Your task to perform on an android device: turn off location Image 0: 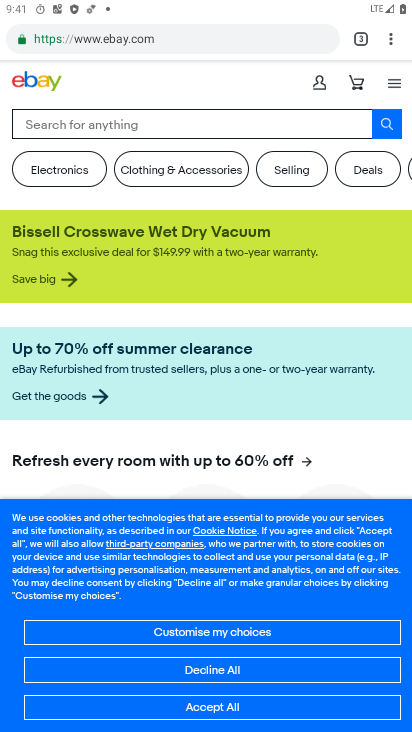
Step 0: press home button
Your task to perform on an android device: turn off location Image 1: 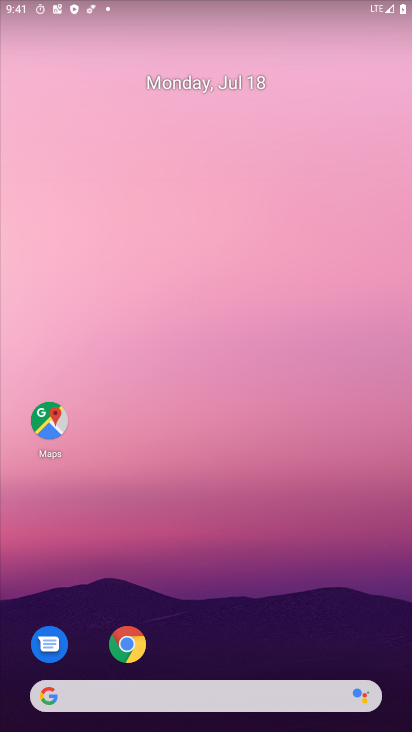
Step 1: drag from (214, 660) to (216, 114)
Your task to perform on an android device: turn off location Image 2: 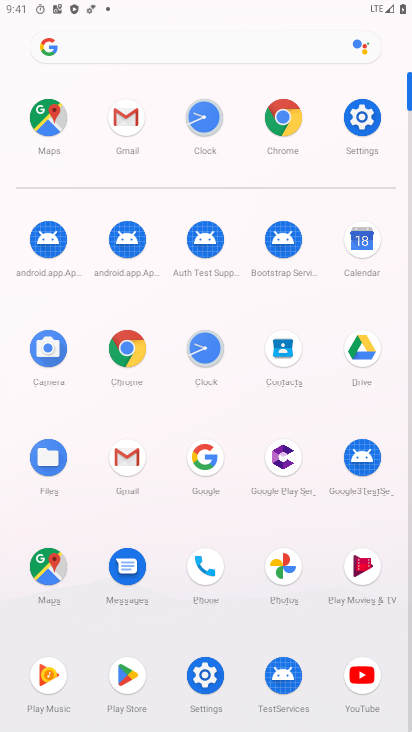
Step 2: click (364, 102)
Your task to perform on an android device: turn off location Image 3: 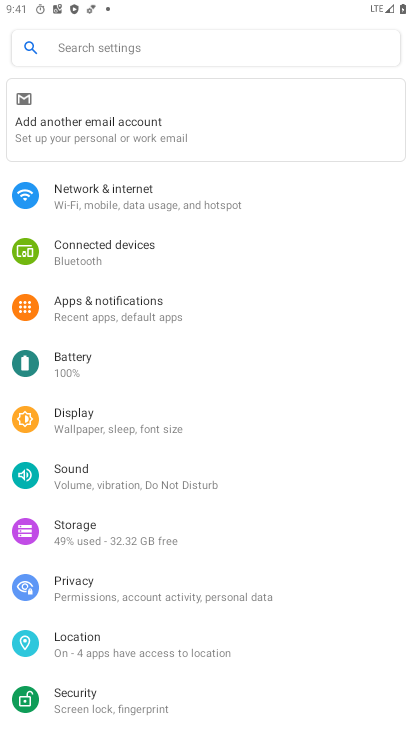
Step 3: click (125, 640)
Your task to perform on an android device: turn off location Image 4: 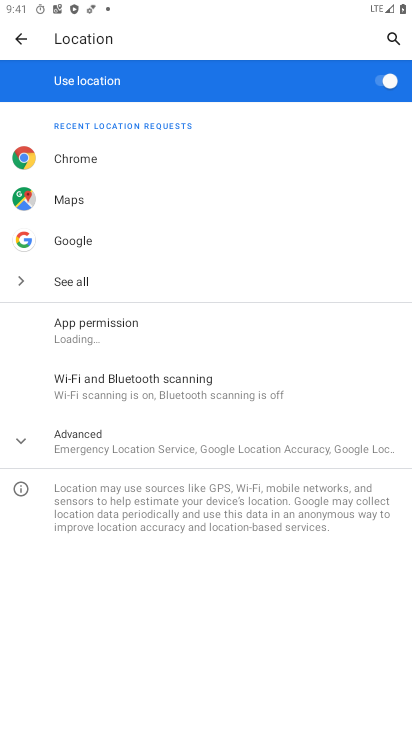
Step 4: click (380, 80)
Your task to perform on an android device: turn off location Image 5: 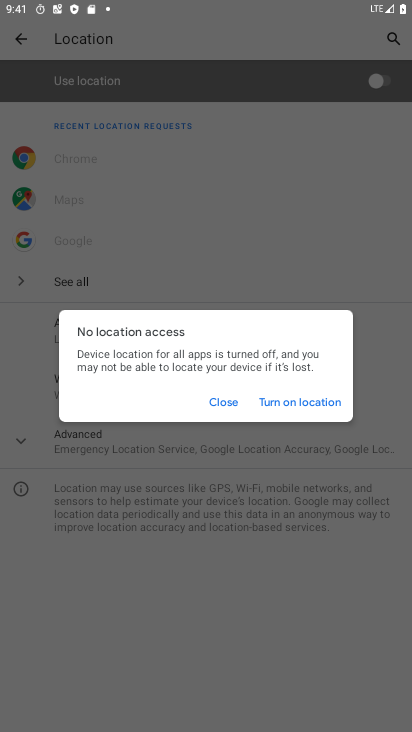
Step 5: task complete